Your task to perform on an android device: install app "Gmail" Image 0: 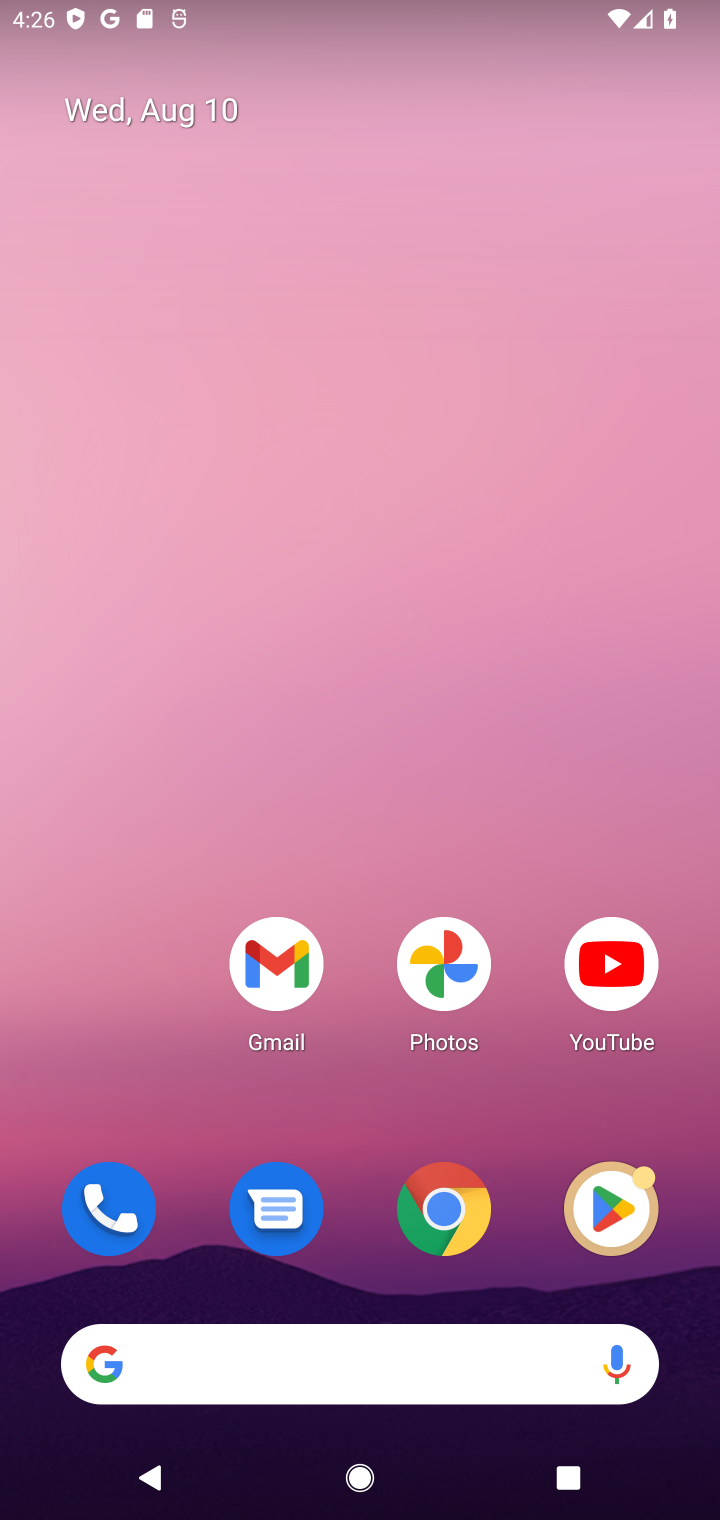
Step 0: click (258, 966)
Your task to perform on an android device: install app "Gmail" Image 1: 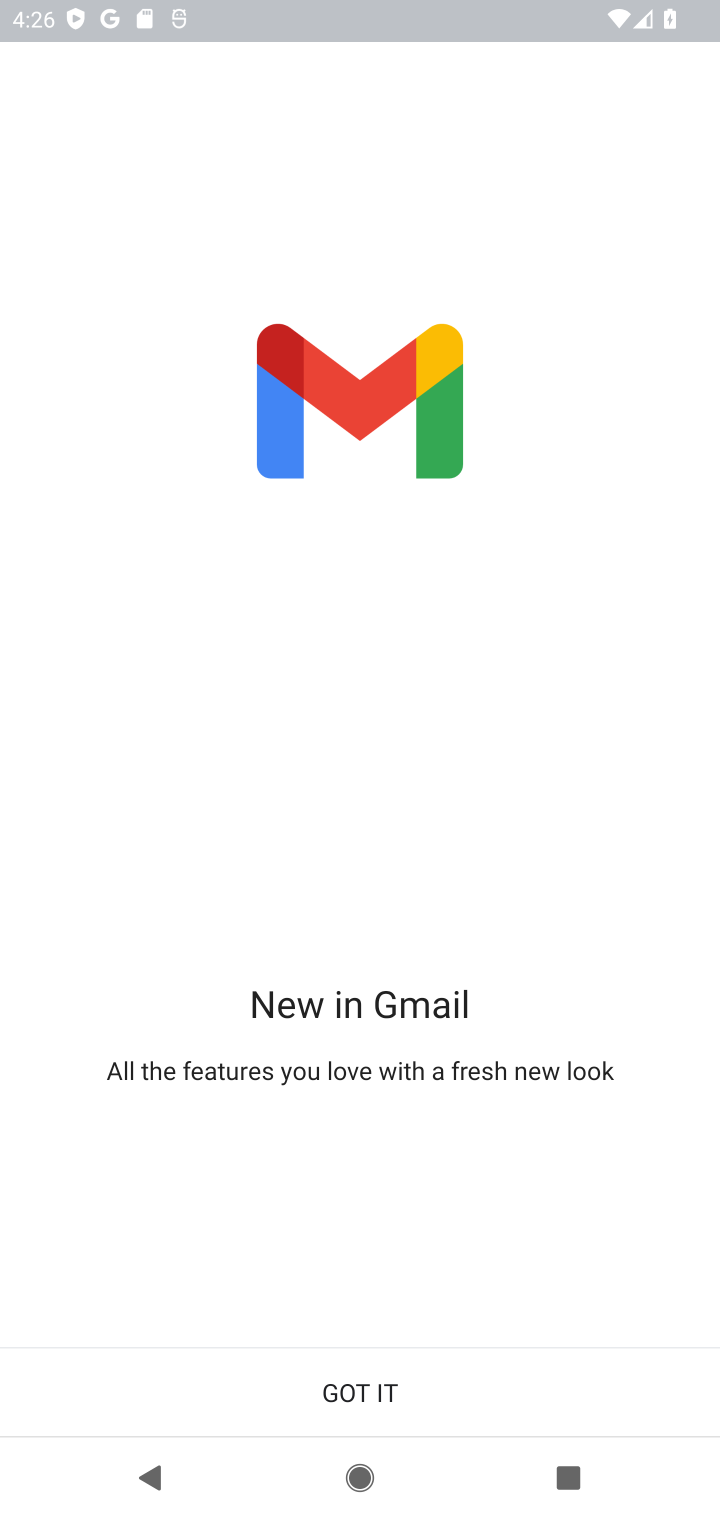
Step 1: click (389, 1405)
Your task to perform on an android device: install app "Gmail" Image 2: 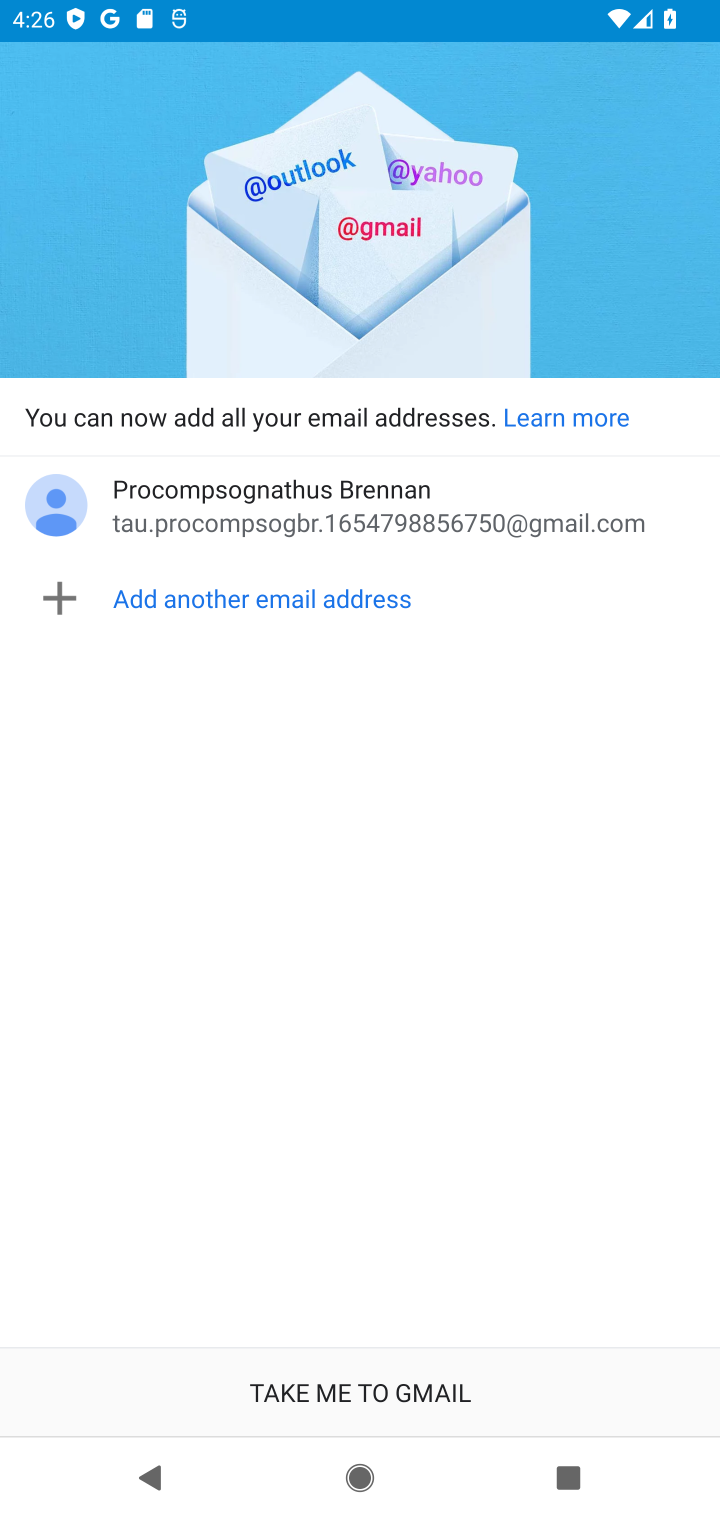
Step 2: click (389, 1405)
Your task to perform on an android device: install app "Gmail" Image 3: 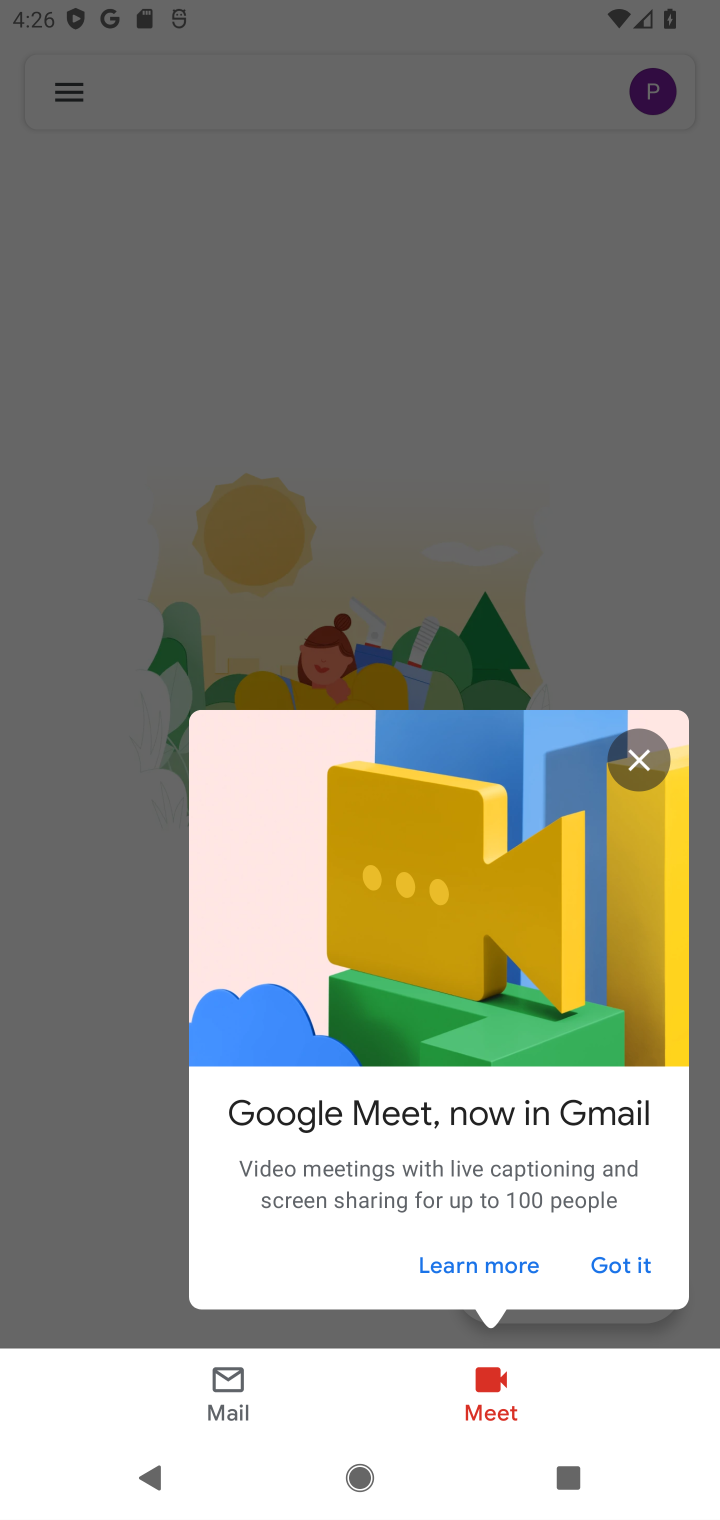
Step 3: click (638, 741)
Your task to perform on an android device: install app "Gmail" Image 4: 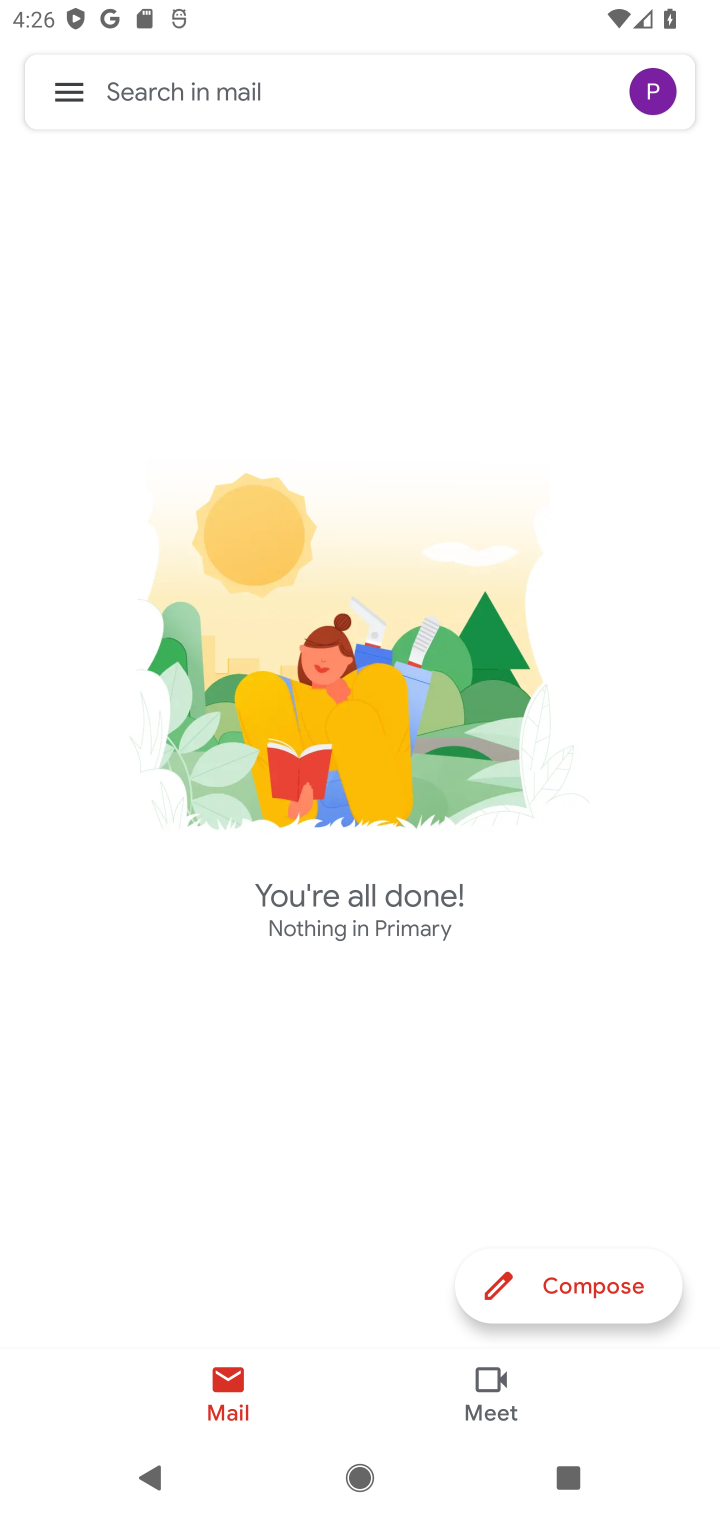
Step 4: task complete